Your task to perform on an android device: set an alarm Image 0: 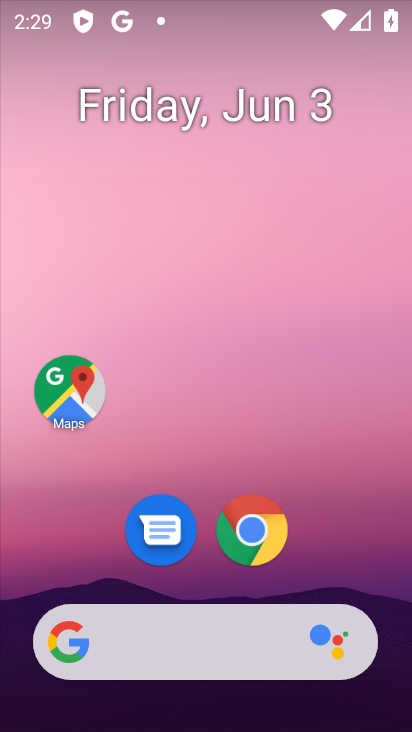
Step 0: drag from (143, 702) to (204, 49)
Your task to perform on an android device: set an alarm Image 1: 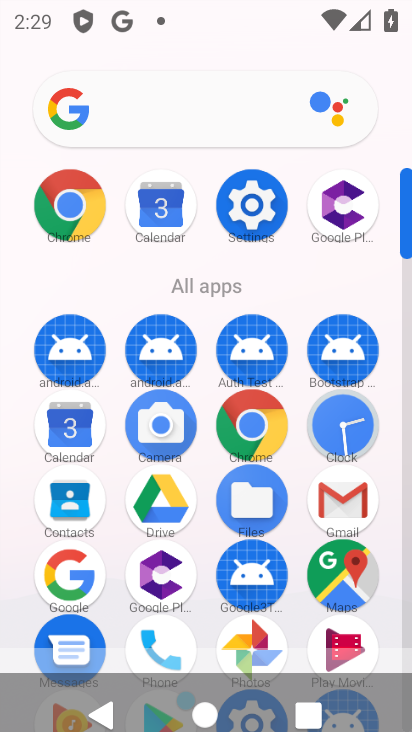
Step 1: drag from (108, 517) to (118, 204)
Your task to perform on an android device: set an alarm Image 2: 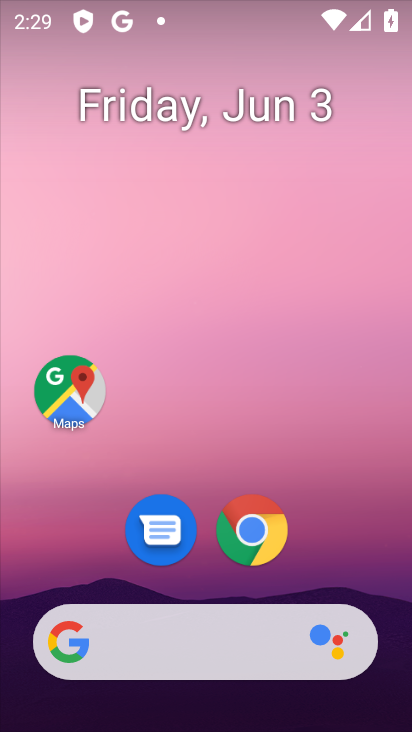
Step 2: drag from (128, 730) to (129, 78)
Your task to perform on an android device: set an alarm Image 3: 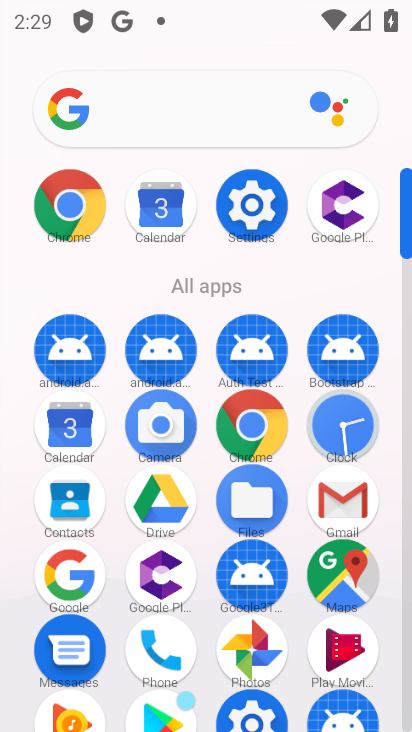
Step 3: click (345, 418)
Your task to perform on an android device: set an alarm Image 4: 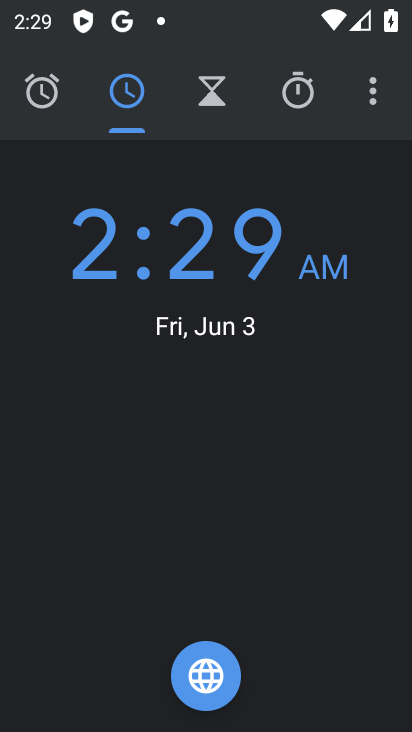
Step 4: click (34, 90)
Your task to perform on an android device: set an alarm Image 5: 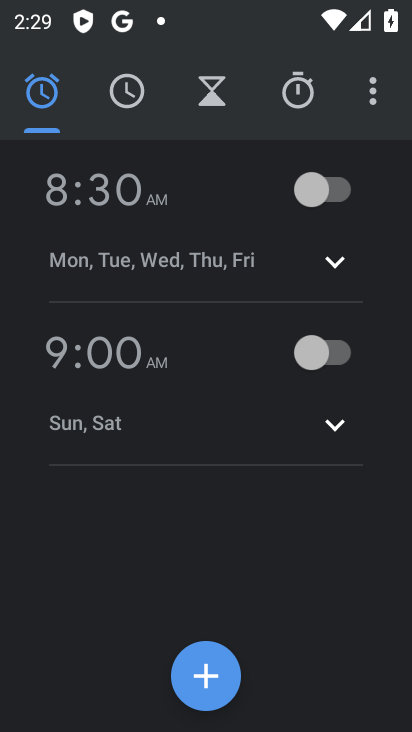
Step 5: click (325, 190)
Your task to perform on an android device: set an alarm Image 6: 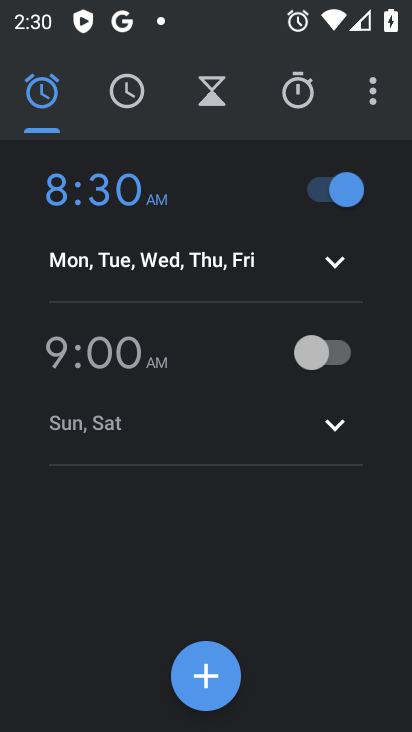
Step 6: task complete